Your task to perform on an android device: Show me popular videos on Youtube Image 0: 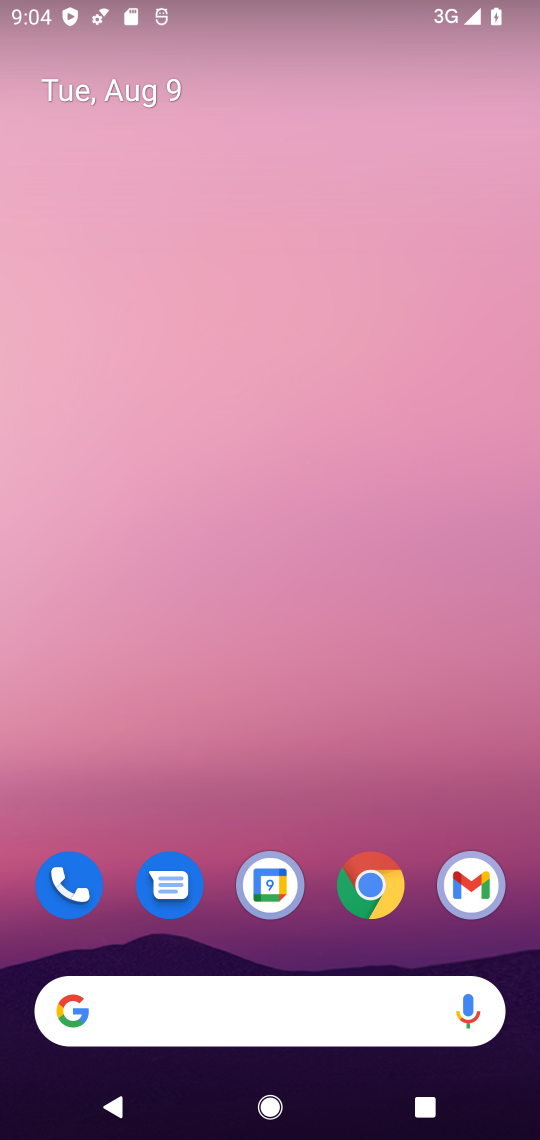
Step 0: press home button
Your task to perform on an android device: Show me popular videos on Youtube Image 1: 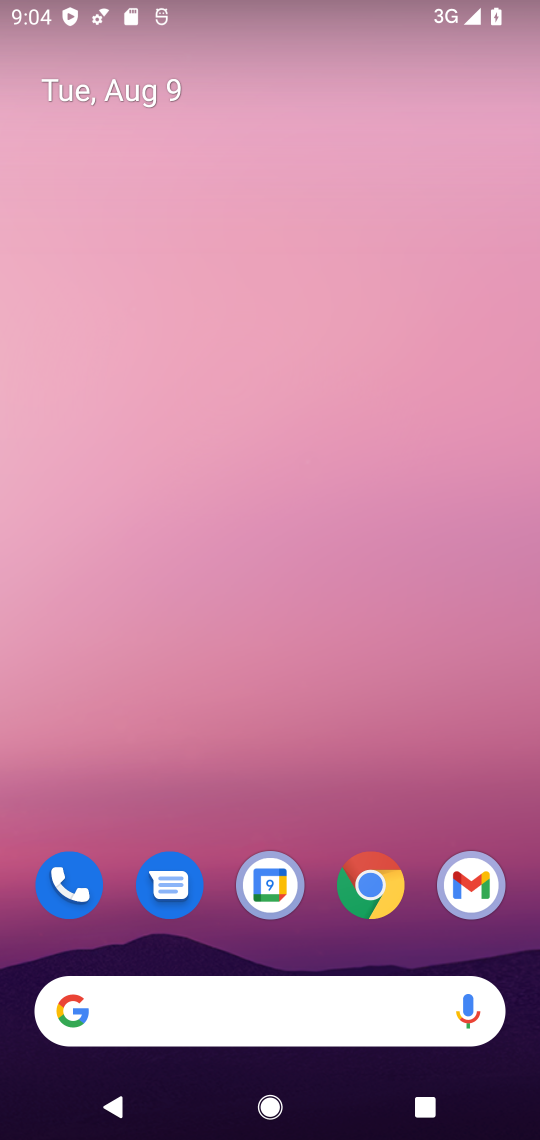
Step 1: drag from (315, 853) to (350, 211)
Your task to perform on an android device: Show me popular videos on Youtube Image 2: 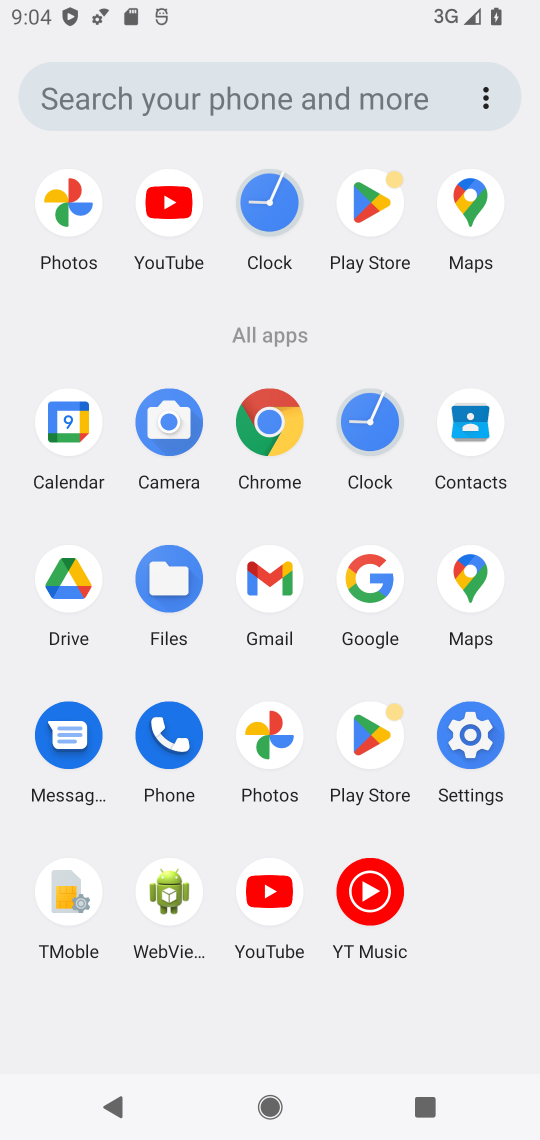
Step 2: click (267, 891)
Your task to perform on an android device: Show me popular videos on Youtube Image 3: 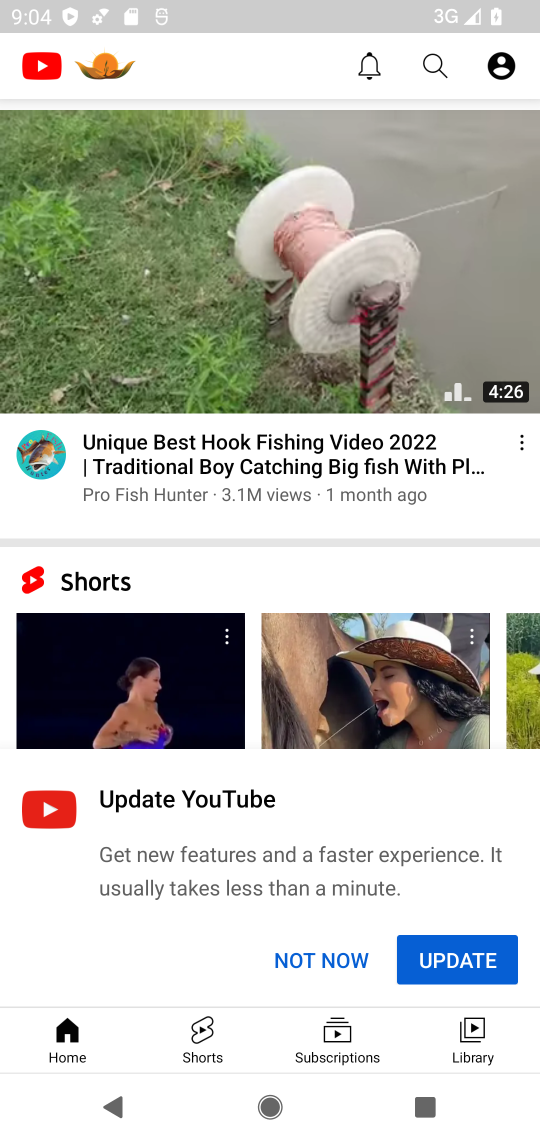
Step 3: drag from (159, 252) to (173, 769)
Your task to perform on an android device: Show me popular videos on Youtube Image 4: 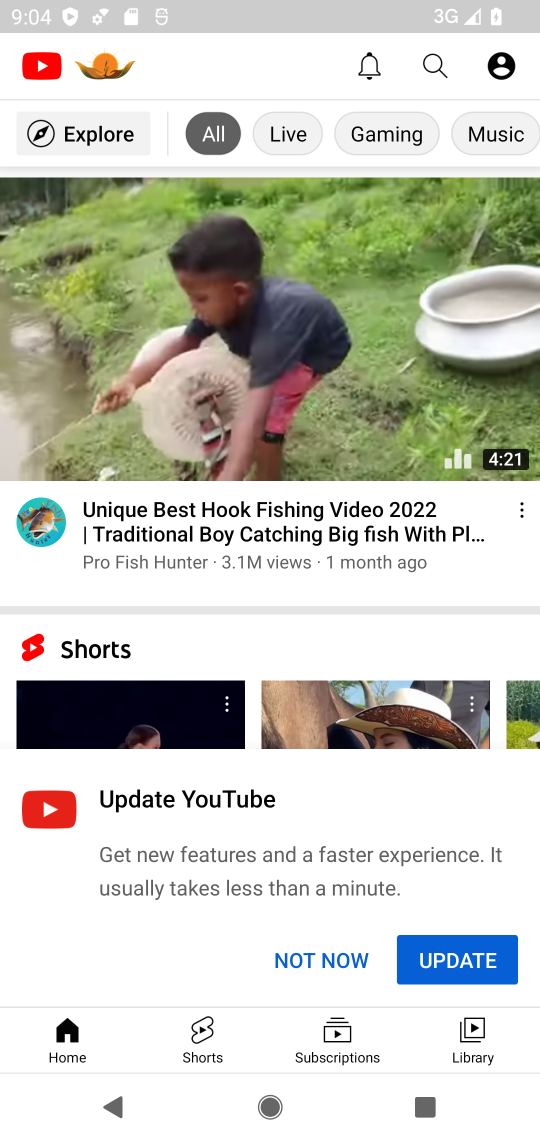
Step 4: click (54, 126)
Your task to perform on an android device: Show me popular videos on Youtube Image 5: 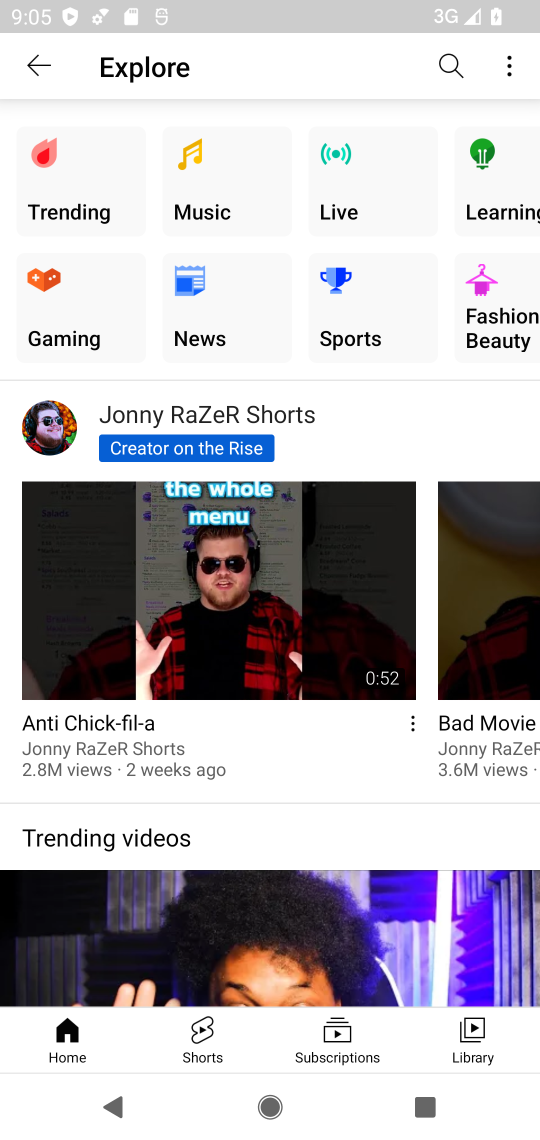
Step 5: click (35, 176)
Your task to perform on an android device: Show me popular videos on Youtube Image 6: 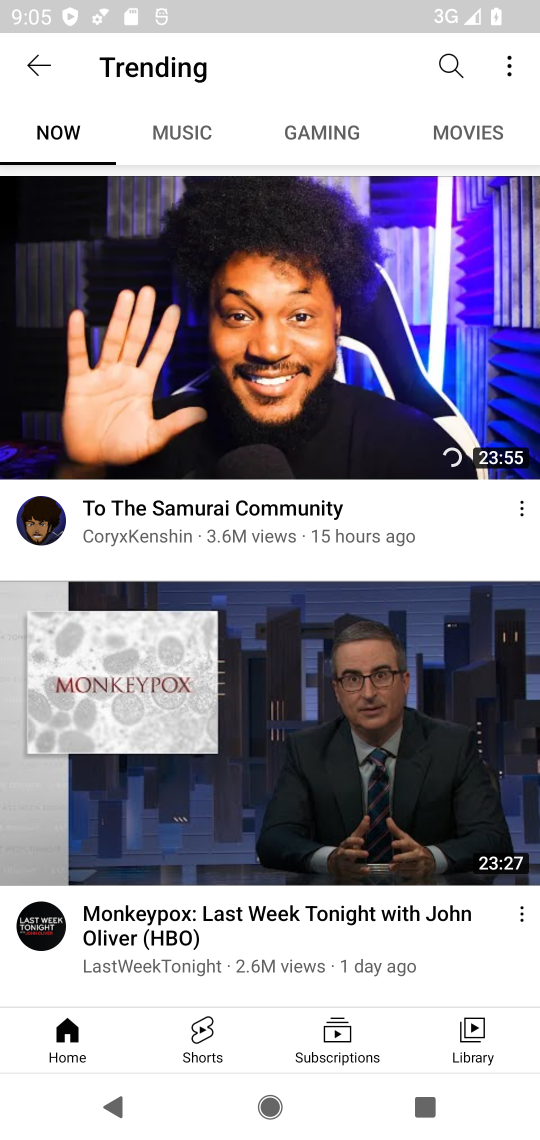
Step 6: task complete